Your task to perform on an android device: Open sound settings Image 0: 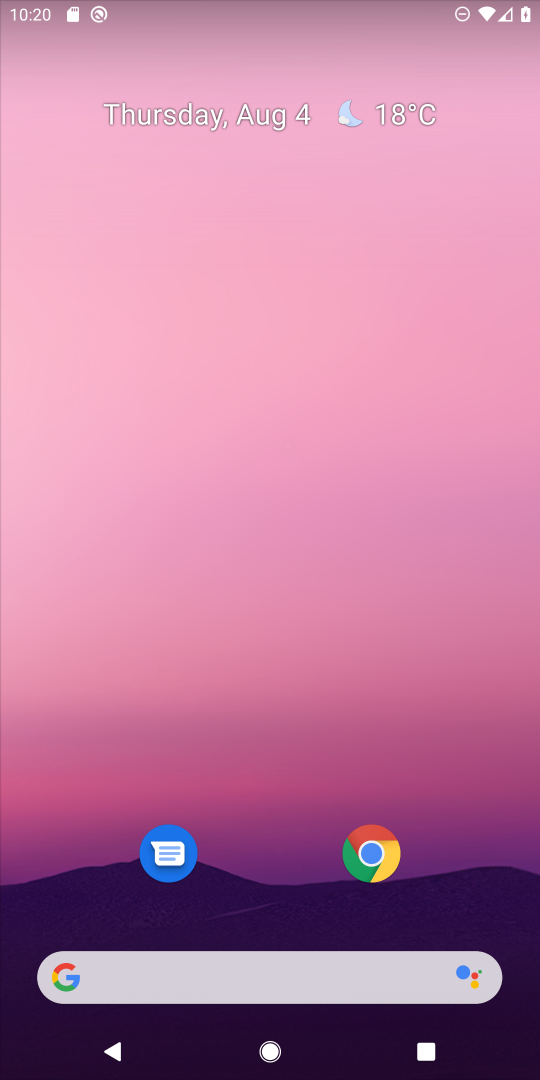
Step 0: drag from (289, 919) to (270, 21)
Your task to perform on an android device: Open sound settings Image 1: 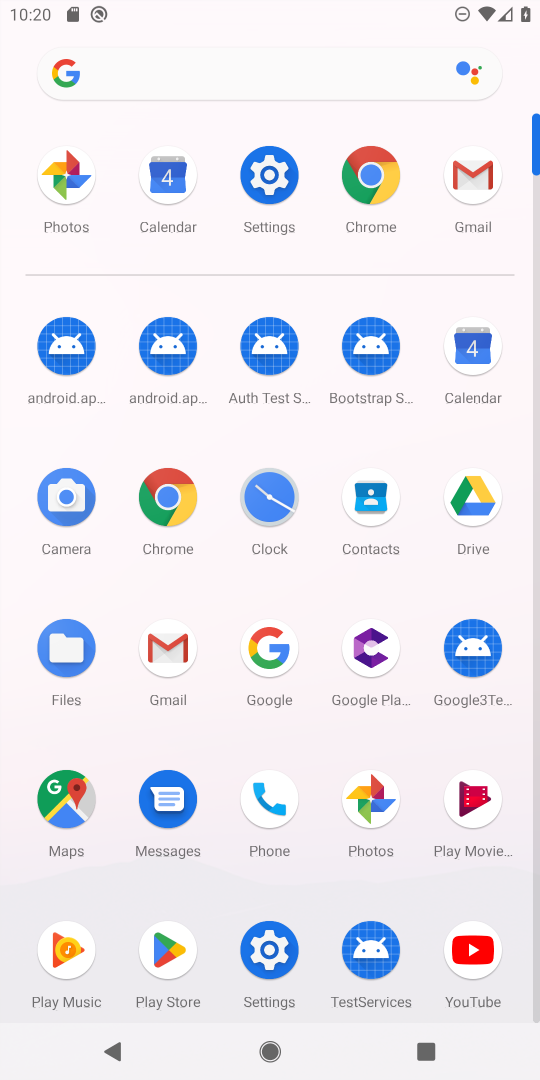
Step 1: click (274, 956)
Your task to perform on an android device: Open sound settings Image 2: 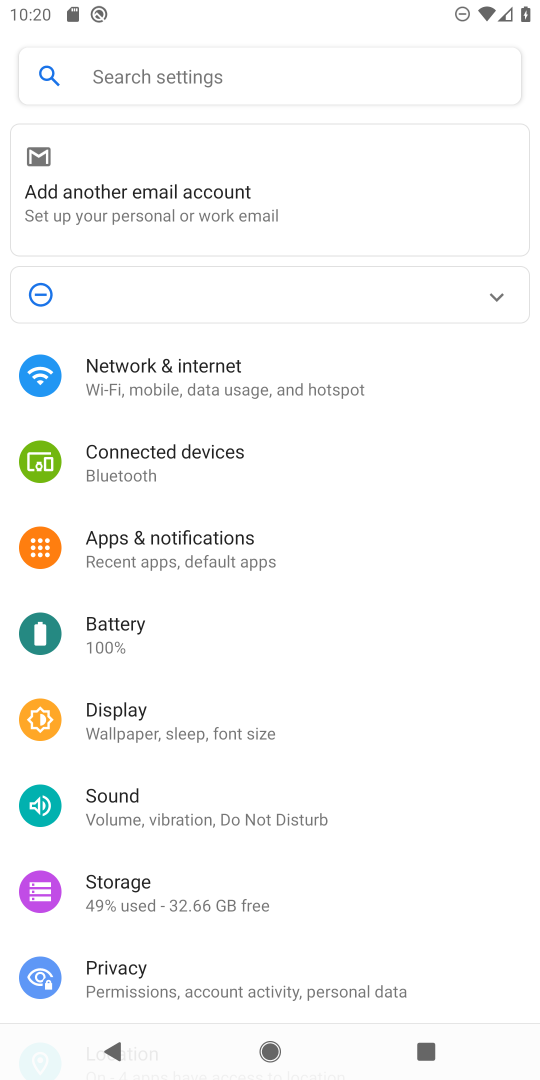
Step 2: click (140, 835)
Your task to perform on an android device: Open sound settings Image 3: 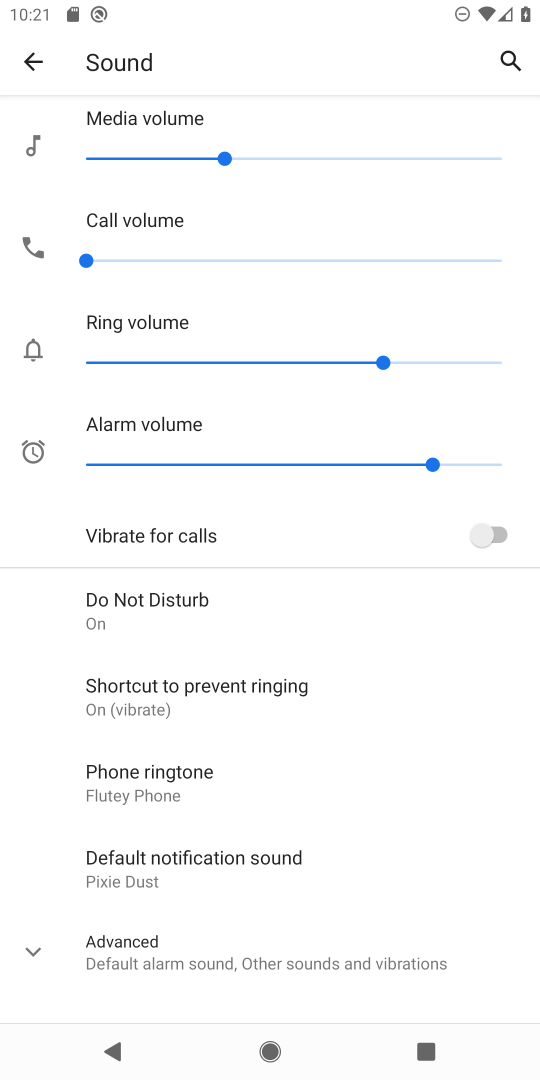
Step 3: task complete